Your task to perform on an android device: Open battery settings Image 0: 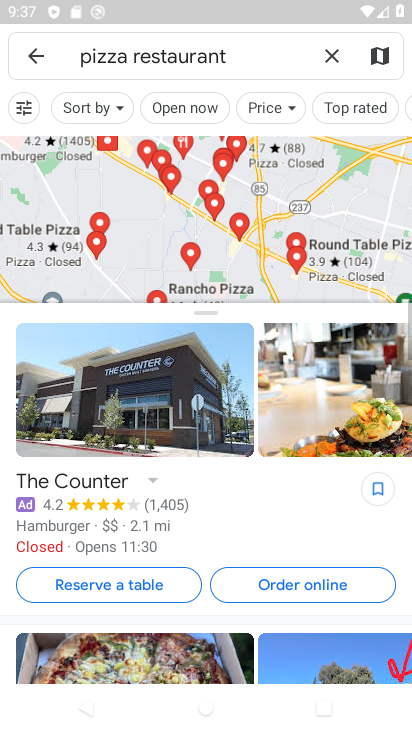
Step 0: press home button
Your task to perform on an android device: Open battery settings Image 1: 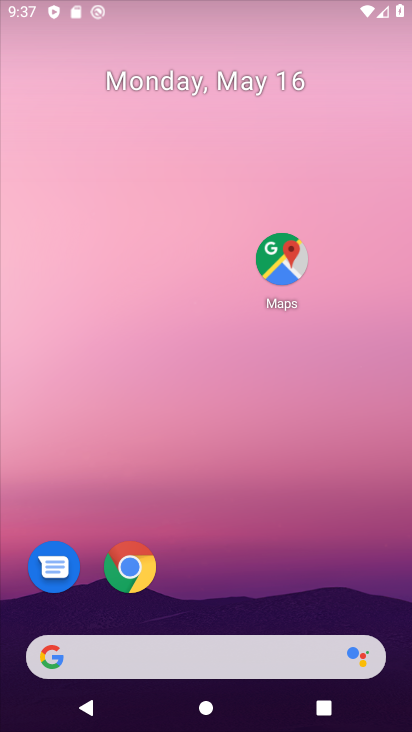
Step 1: drag from (236, 577) to (231, 88)
Your task to perform on an android device: Open battery settings Image 2: 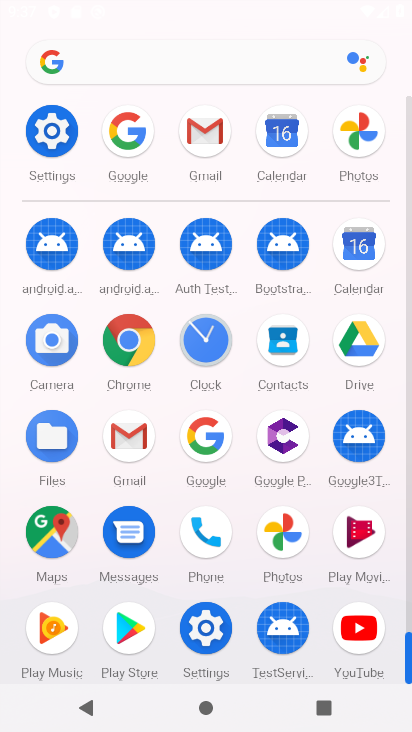
Step 2: click (47, 125)
Your task to perform on an android device: Open battery settings Image 3: 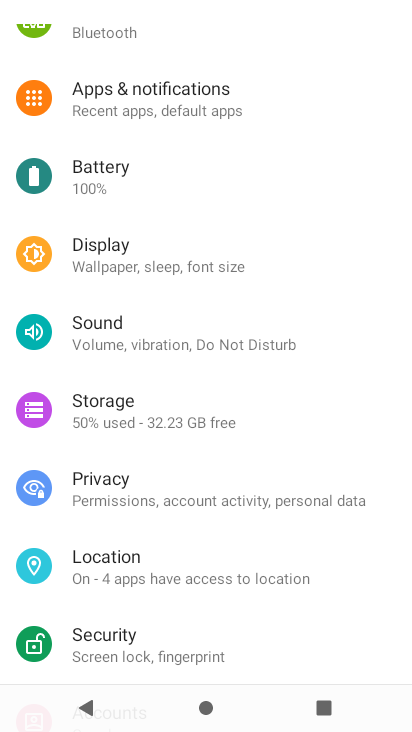
Step 3: click (145, 185)
Your task to perform on an android device: Open battery settings Image 4: 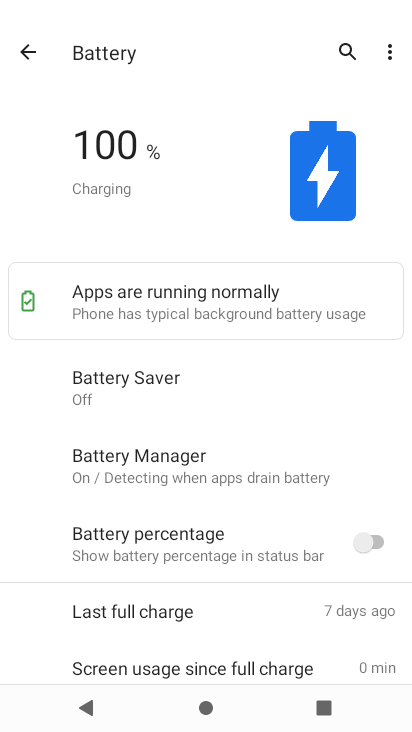
Step 4: task complete